Your task to perform on an android device: check battery use Image 0: 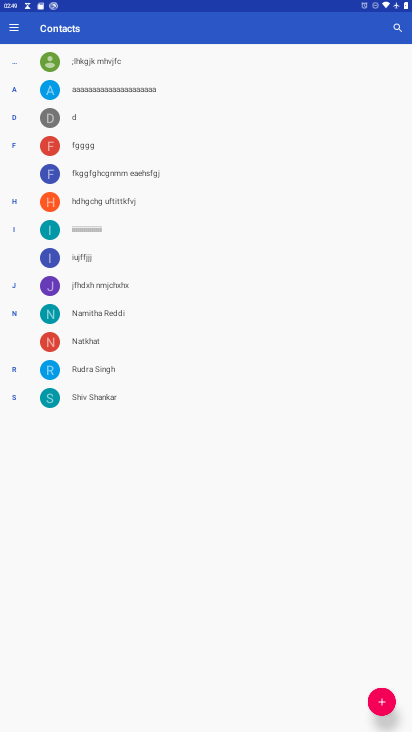
Step 0: press home button
Your task to perform on an android device: check battery use Image 1: 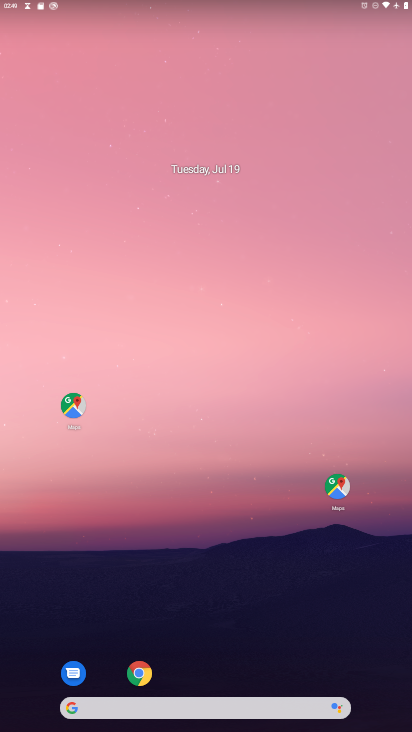
Step 1: drag from (239, 671) to (243, 167)
Your task to perform on an android device: check battery use Image 2: 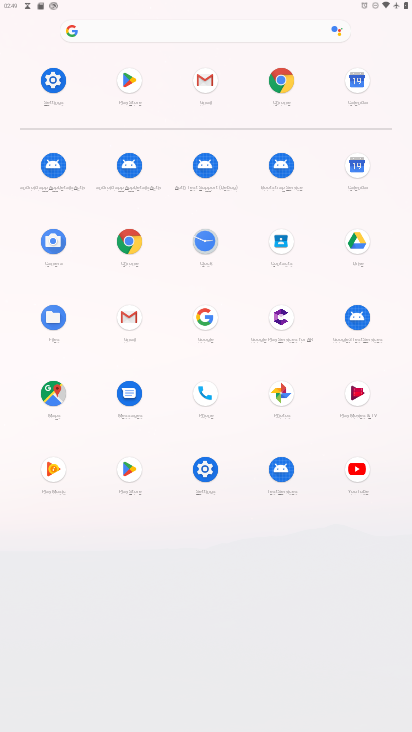
Step 2: click (49, 80)
Your task to perform on an android device: check battery use Image 3: 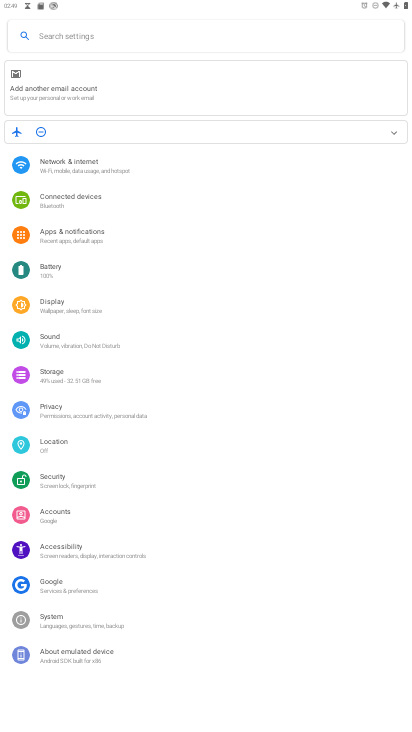
Step 3: click (68, 270)
Your task to perform on an android device: check battery use Image 4: 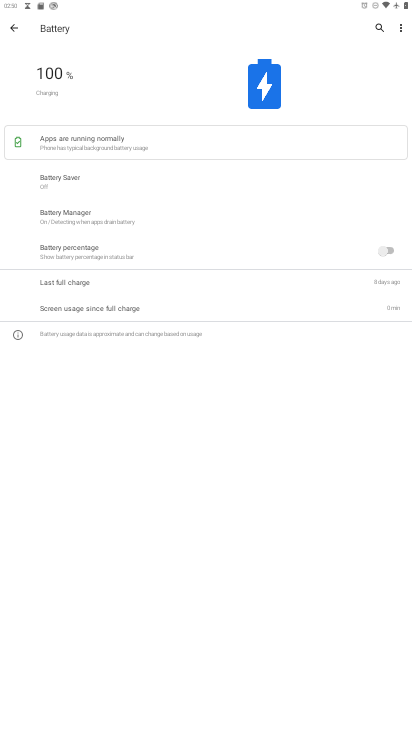
Step 4: click (119, 145)
Your task to perform on an android device: check battery use Image 5: 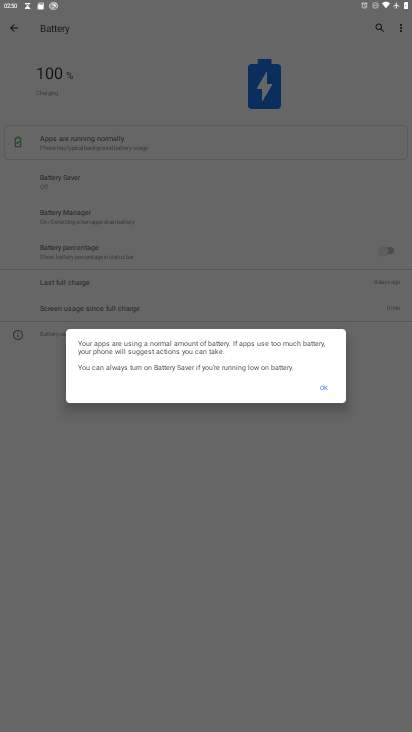
Step 5: click (174, 267)
Your task to perform on an android device: check battery use Image 6: 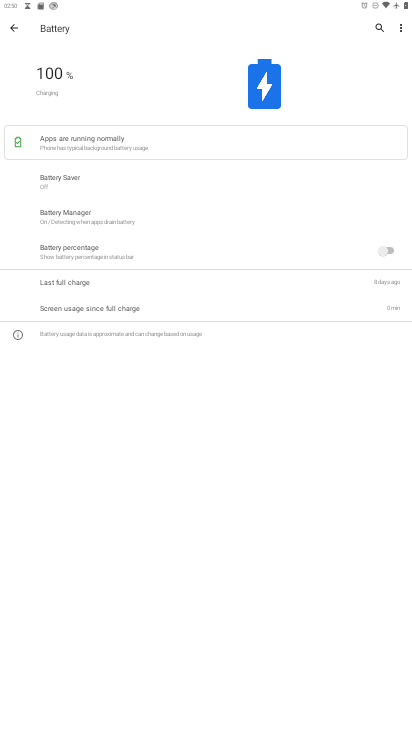
Step 6: task complete